Your task to perform on an android device: star an email in the gmail app Image 0: 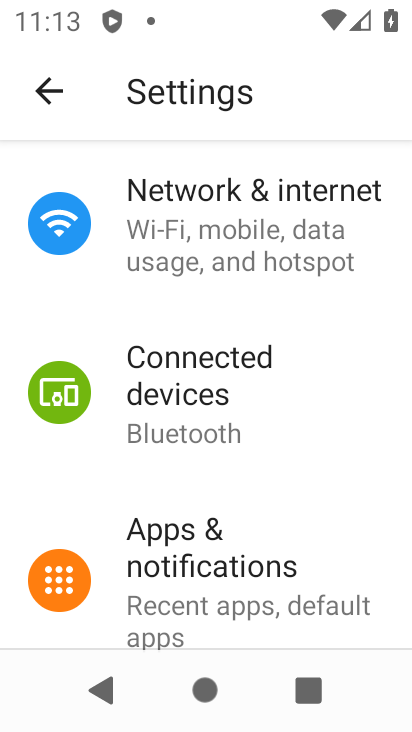
Step 0: press home button
Your task to perform on an android device: star an email in the gmail app Image 1: 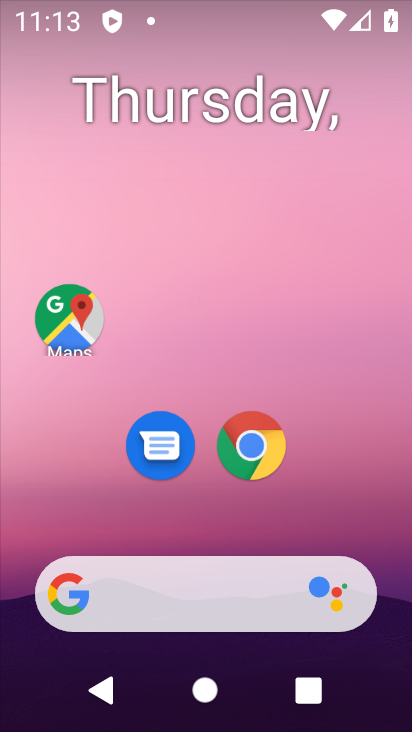
Step 1: drag from (359, 536) to (358, 99)
Your task to perform on an android device: star an email in the gmail app Image 2: 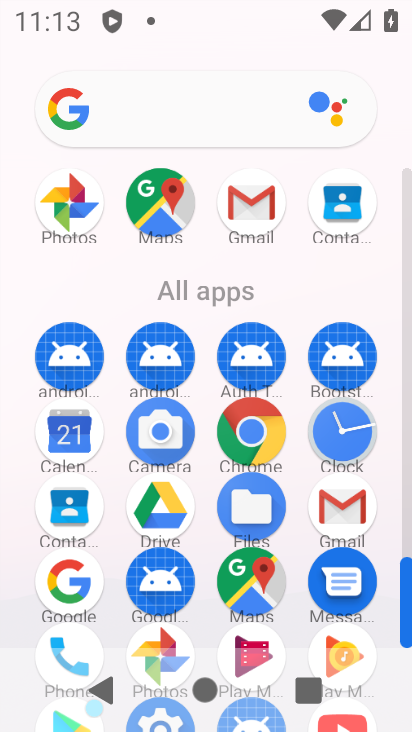
Step 2: click (264, 197)
Your task to perform on an android device: star an email in the gmail app Image 3: 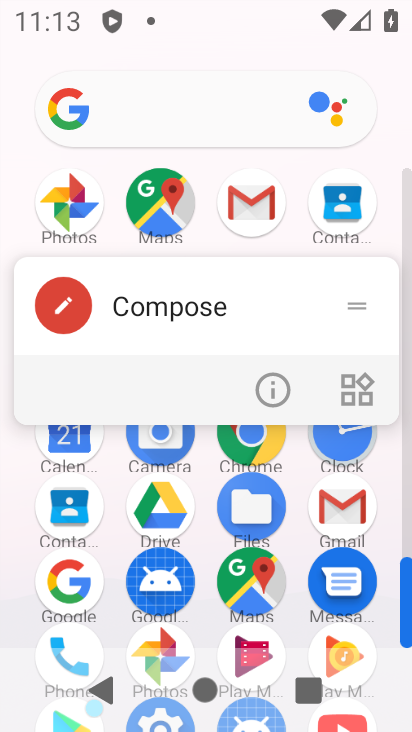
Step 3: click (264, 196)
Your task to perform on an android device: star an email in the gmail app Image 4: 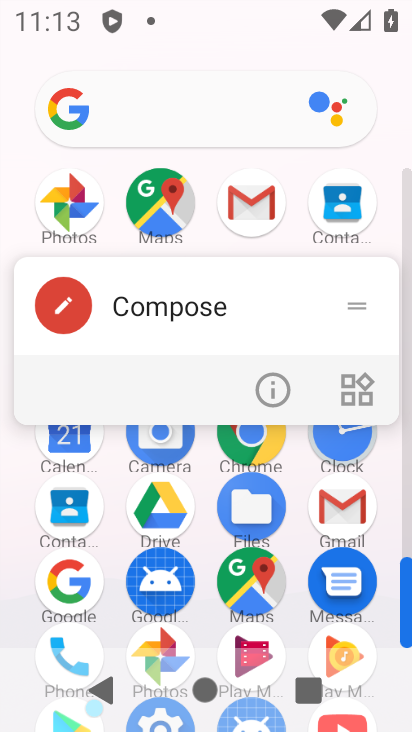
Step 4: click (264, 196)
Your task to perform on an android device: star an email in the gmail app Image 5: 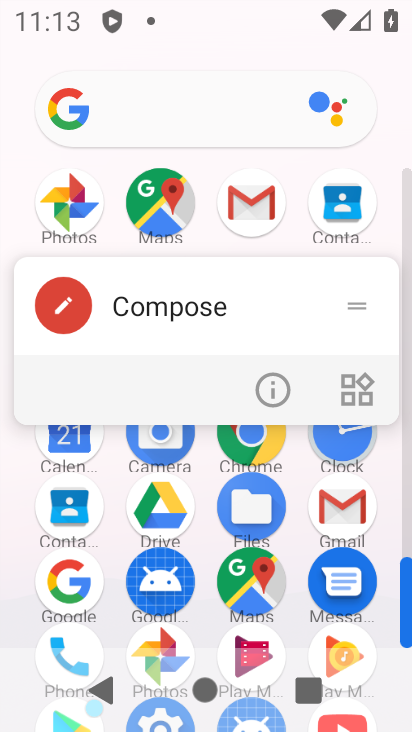
Step 5: click (264, 196)
Your task to perform on an android device: star an email in the gmail app Image 6: 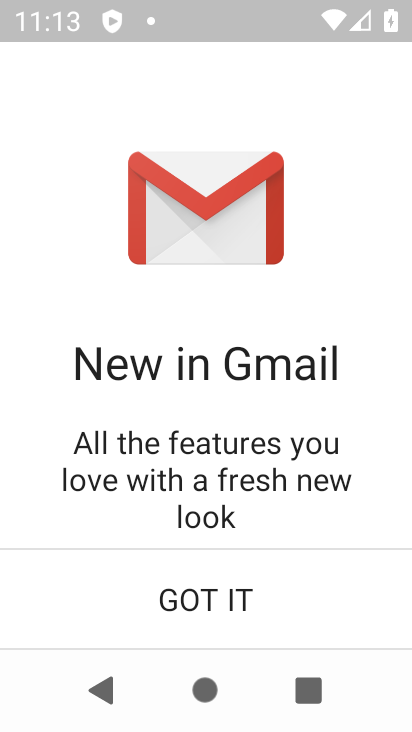
Step 6: click (173, 582)
Your task to perform on an android device: star an email in the gmail app Image 7: 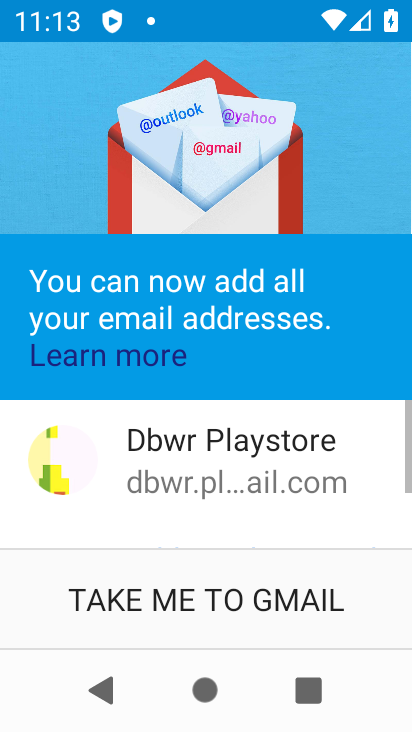
Step 7: click (174, 585)
Your task to perform on an android device: star an email in the gmail app Image 8: 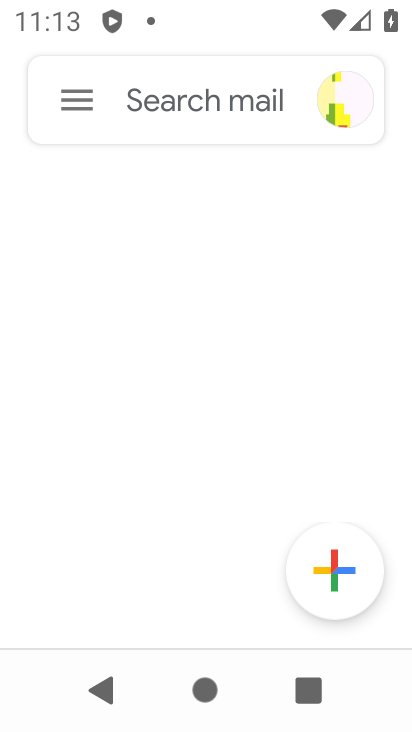
Step 8: task complete